Your task to perform on an android device: Open privacy settings Image 0: 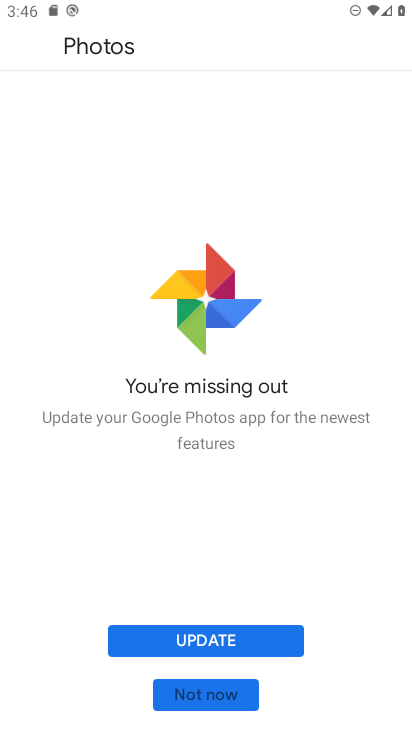
Step 0: press back button
Your task to perform on an android device: Open privacy settings Image 1: 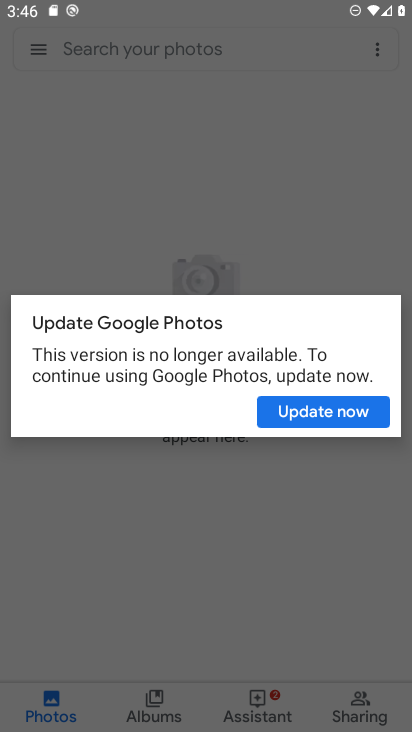
Step 1: press home button
Your task to perform on an android device: Open privacy settings Image 2: 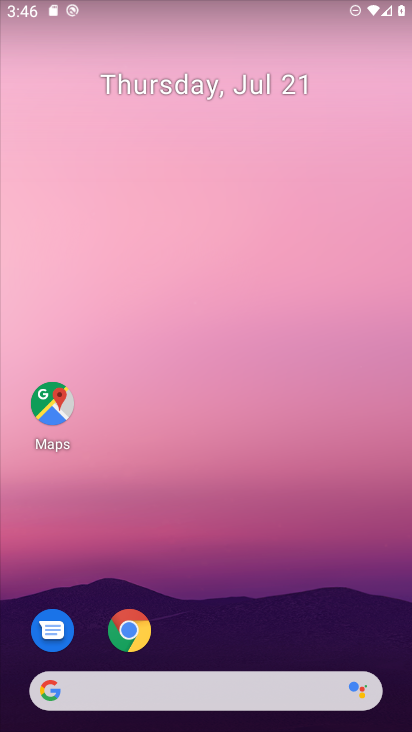
Step 2: drag from (192, 628) to (346, 19)
Your task to perform on an android device: Open privacy settings Image 3: 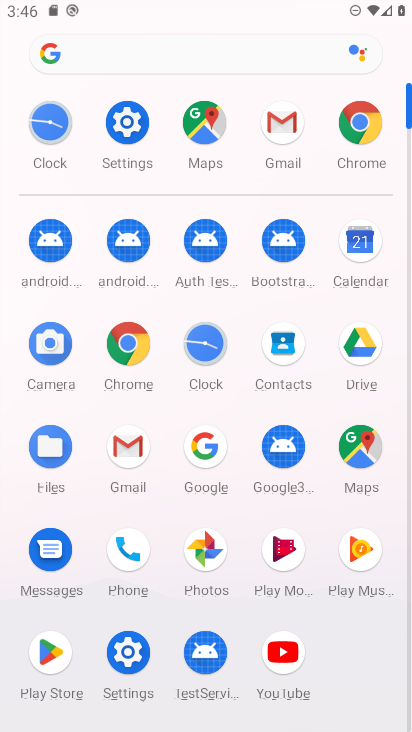
Step 3: click (121, 170)
Your task to perform on an android device: Open privacy settings Image 4: 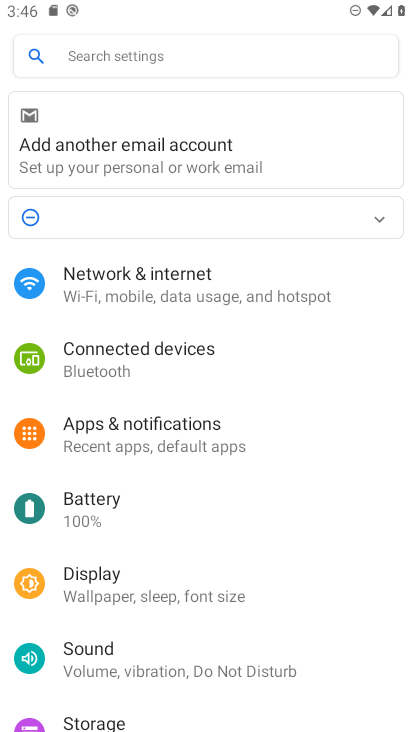
Step 4: drag from (131, 664) to (208, 146)
Your task to perform on an android device: Open privacy settings Image 5: 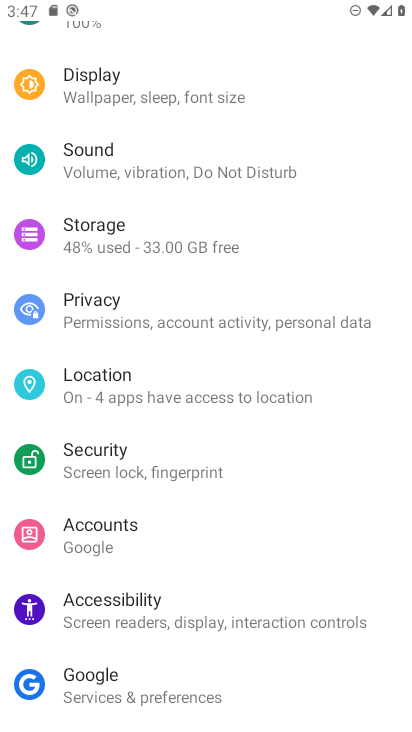
Step 5: click (105, 310)
Your task to perform on an android device: Open privacy settings Image 6: 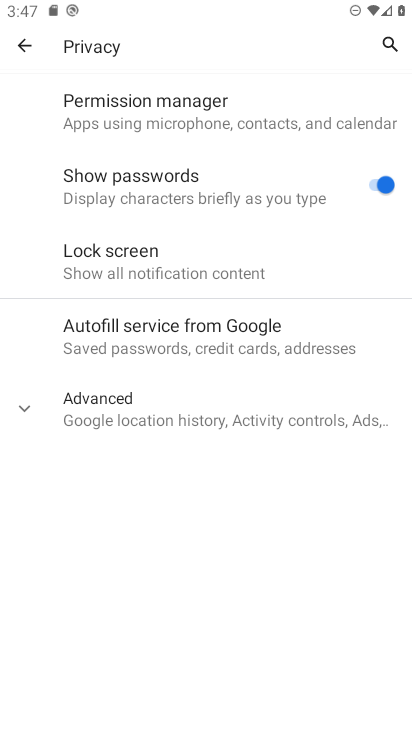
Step 6: task complete